Your task to perform on an android device: change text size in settings app Image 0: 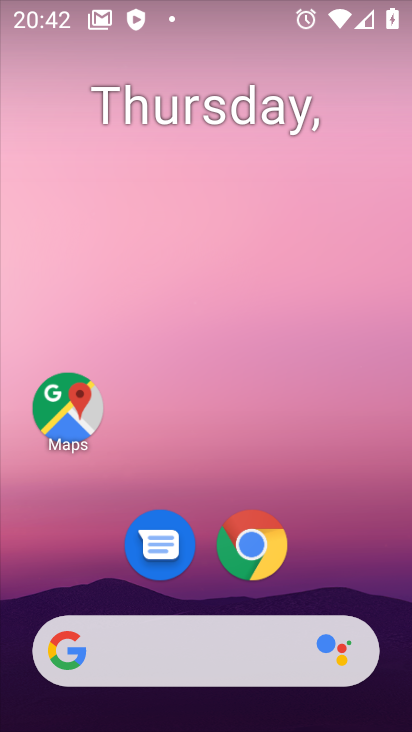
Step 0: drag from (198, 591) to (199, 49)
Your task to perform on an android device: change text size in settings app Image 1: 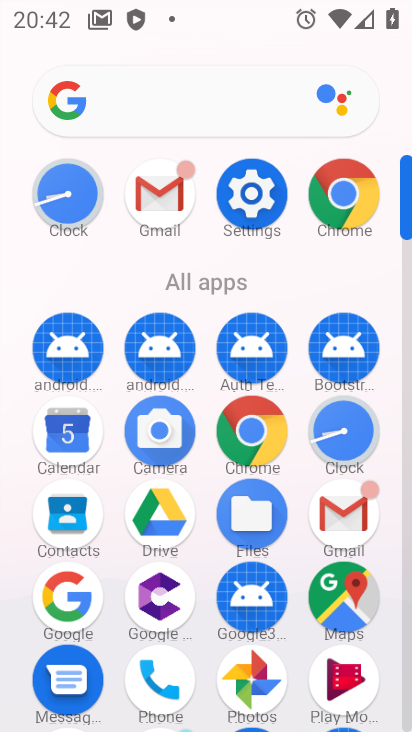
Step 1: click (258, 194)
Your task to perform on an android device: change text size in settings app Image 2: 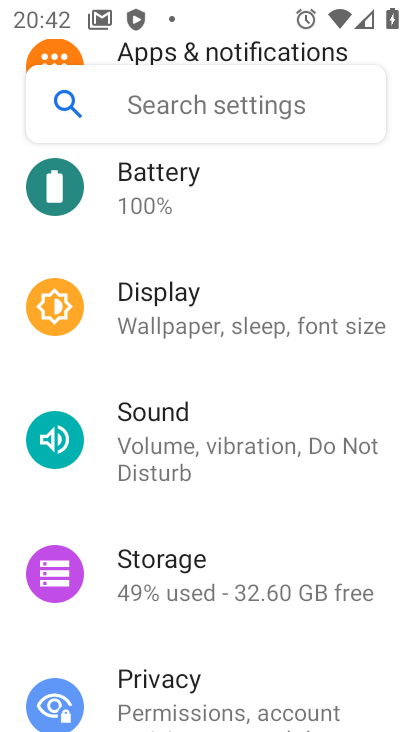
Step 2: click (250, 327)
Your task to perform on an android device: change text size in settings app Image 3: 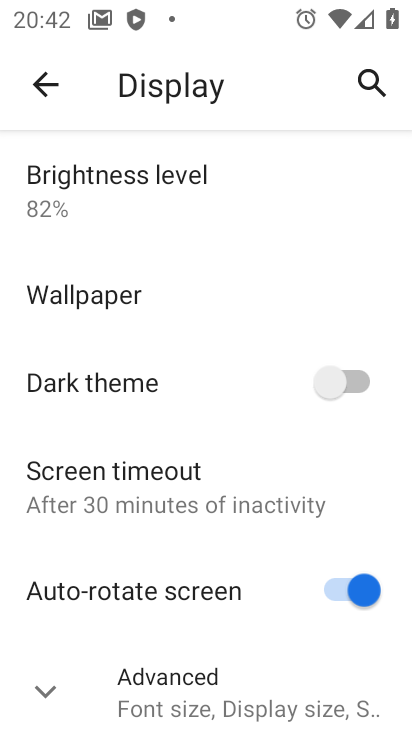
Step 3: click (164, 690)
Your task to perform on an android device: change text size in settings app Image 4: 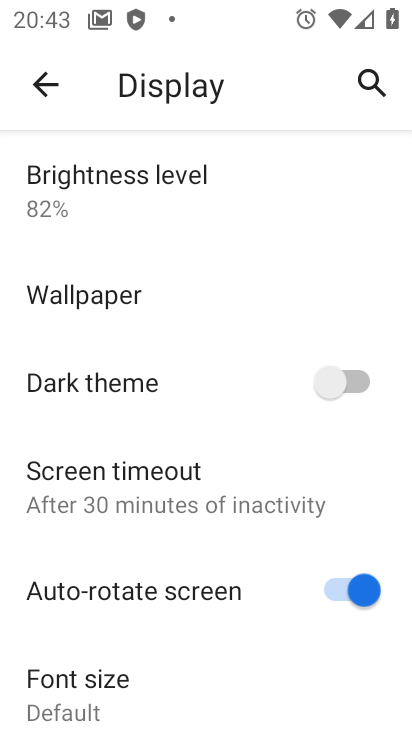
Step 4: click (164, 690)
Your task to perform on an android device: change text size in settings app Image 5: 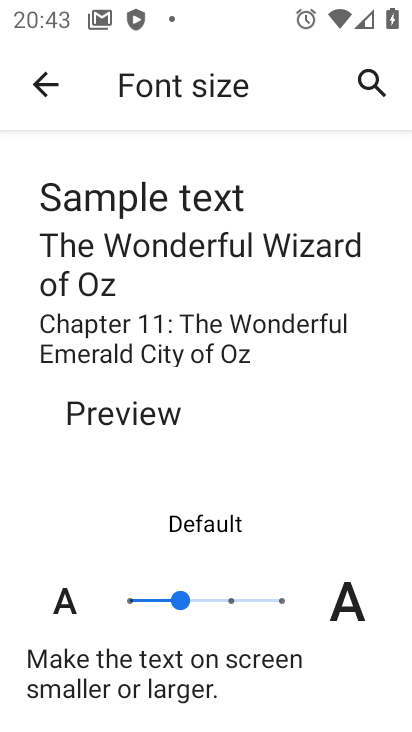
Step 5: click (235, 598)
Your task to perform on an android device: change text size in settings app Image 6: 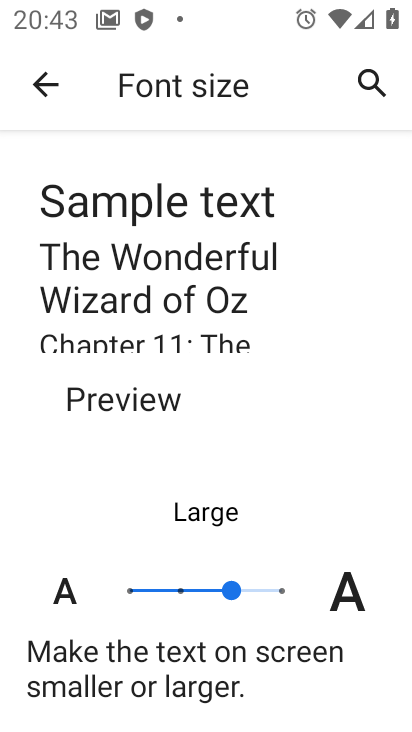
Step 6: task complete